Your task to perform on an android device: empty trash in the gmail app Image 0: 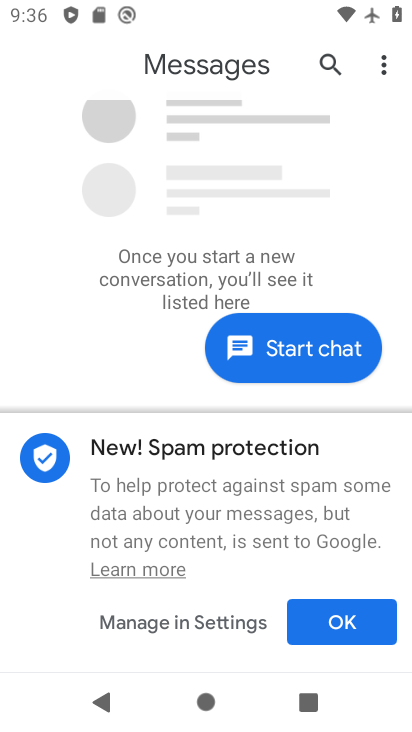
Step 0: press home button
Your task to perform on an android device: empty trash in the gmail app Image 1: 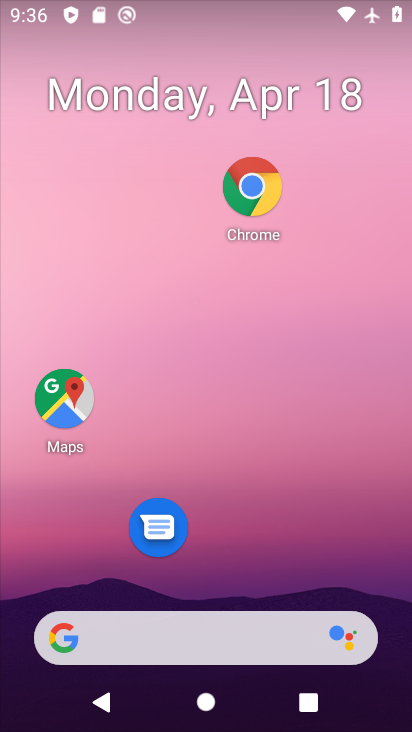
Step 1: drag from (251, 711) to (328, 208)
Your task to perform on an android device: empty trash in the gmail app Image 2: 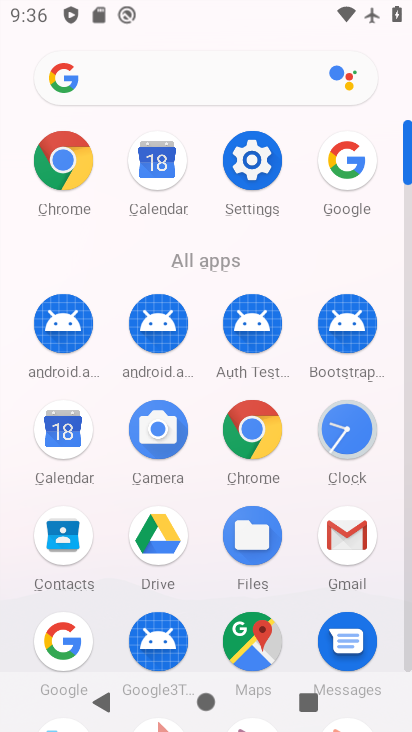
Step 2: click (340, 528)
Your task to perform on an android device: empty trash in the gmail app Image 3: 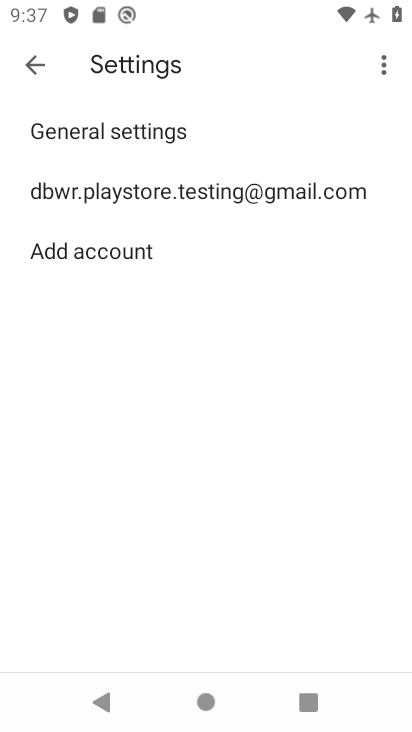
Step 3: click (34, 63)
Your task to perform on an android device: empty trash in the gmail app Image 4: 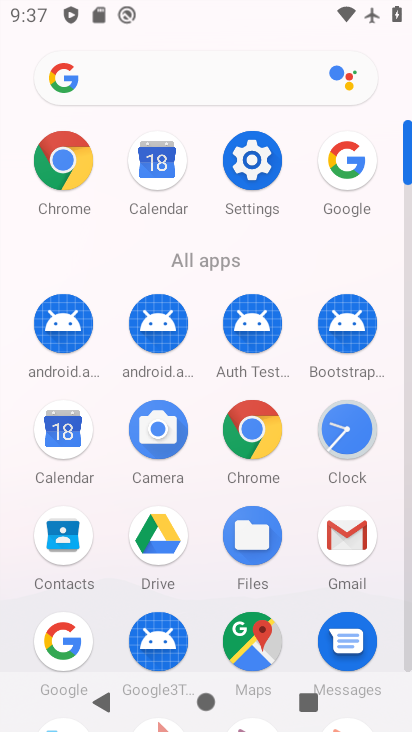
Step 4: click (337, 532)
Your task to perform on an android device: empty trash in the gmail app Image 5: 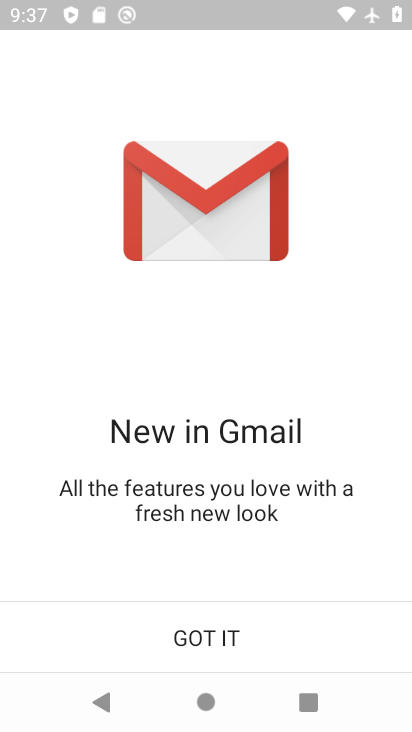
Step 5: click (234, 630)
Your task to perform on an android device: empty trash in the gmail app Image 6: 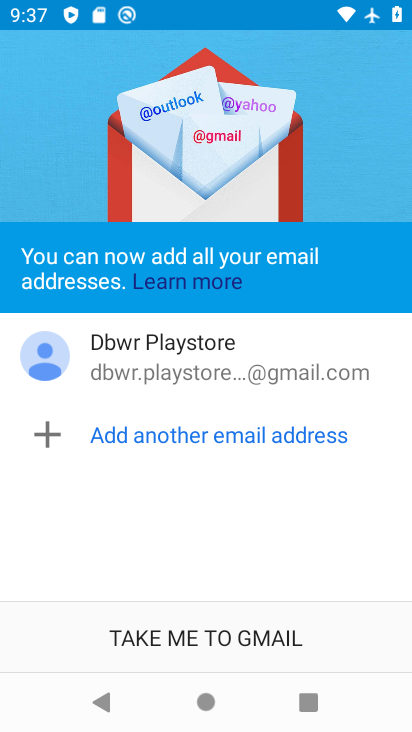
Step 6: click (230, 638)
Your task to perform on an android device: empty trash in the gmail app Image 7: 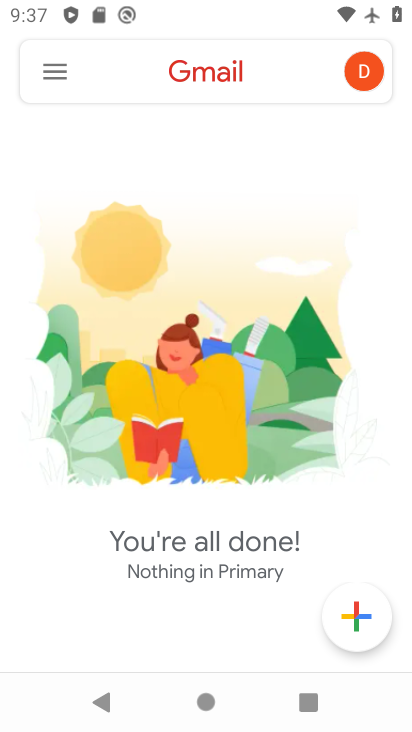
Step 7: click (50, 76)
Your task to perform on an android device: empty trash in the gmail app Image 8: 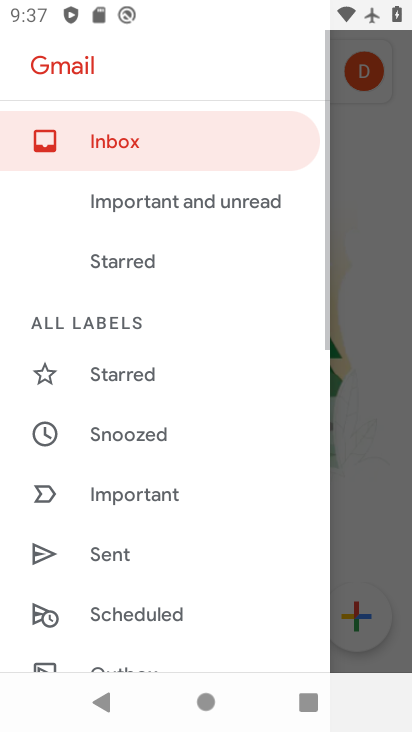
Step 8: drag from (155, 595) to (188, 232)
Your task to perform on an android device: empty trash in the gmail app Image 9: 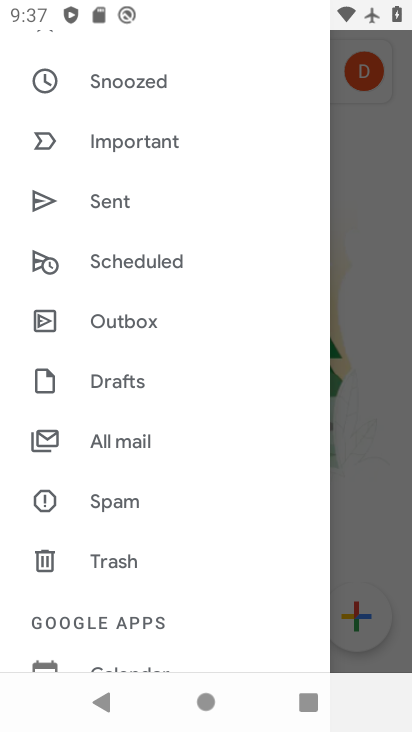
Step 9: click (118, 565)
Your task to perform on an android device: empty trash in the gmail app Image 10: 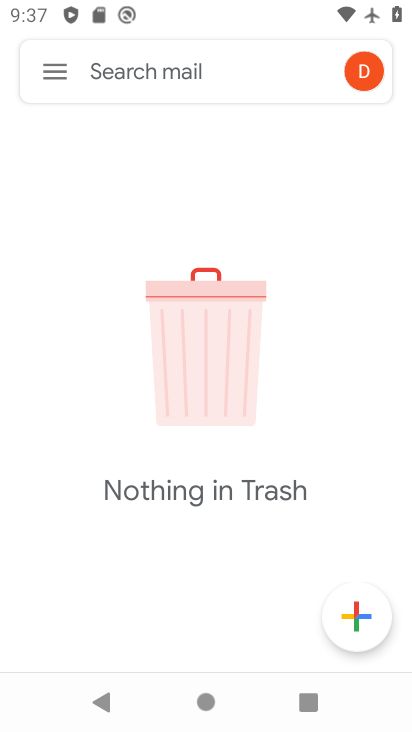
Step 10: task complete